Your task to perform on an android device: turn off data saver in the chrome app Image 0: 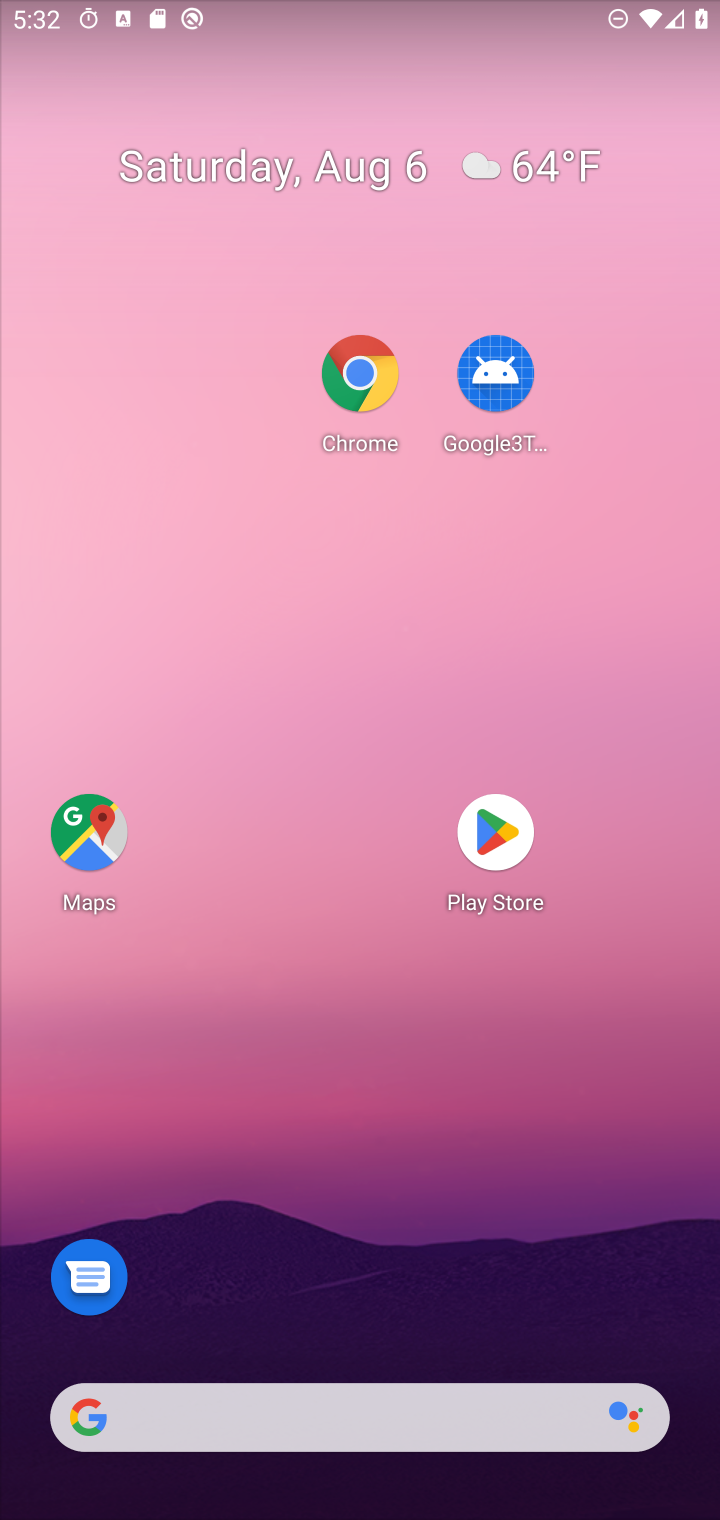
Step 0: drag from (536, 1415) to (538, 132)
Your task to perform on an android device: turn off data saver in the chrome app Image 1: 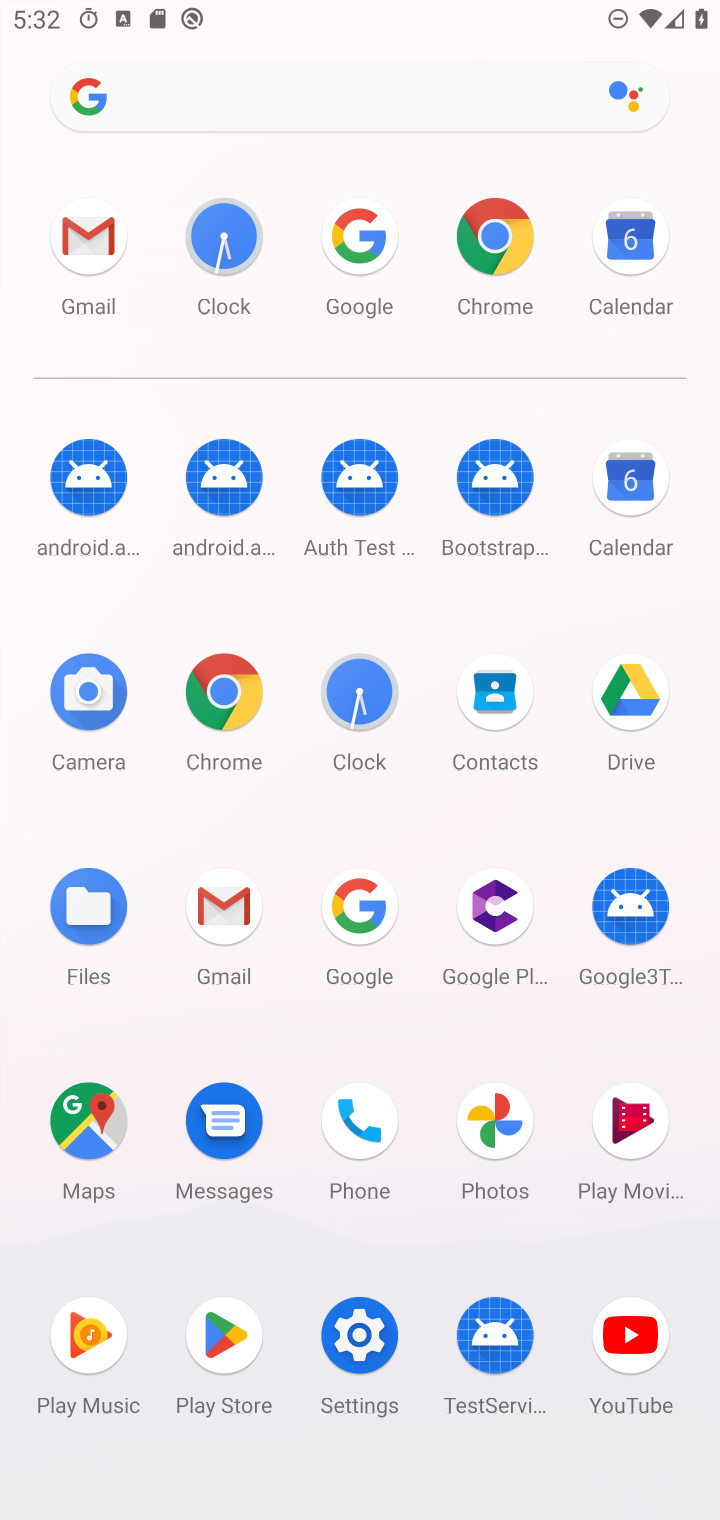
Step 1: click (235, 708)
Your task to perform on an android device: turn off data saver in the chrome app Image 2: 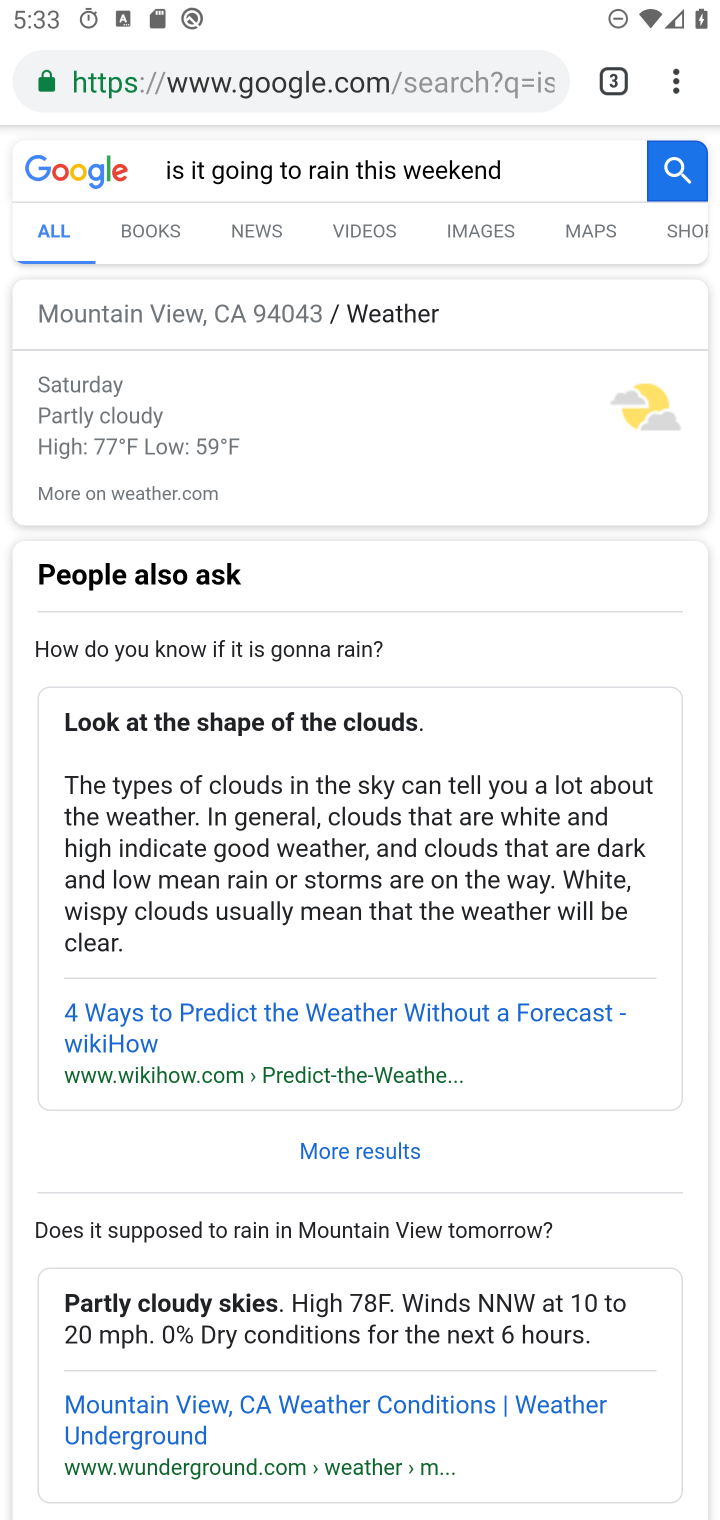
Step 2: drag from (682, 58) to (377, 907)
Your task to perform on an android device: turn off data saver in the chrome app Image 3: 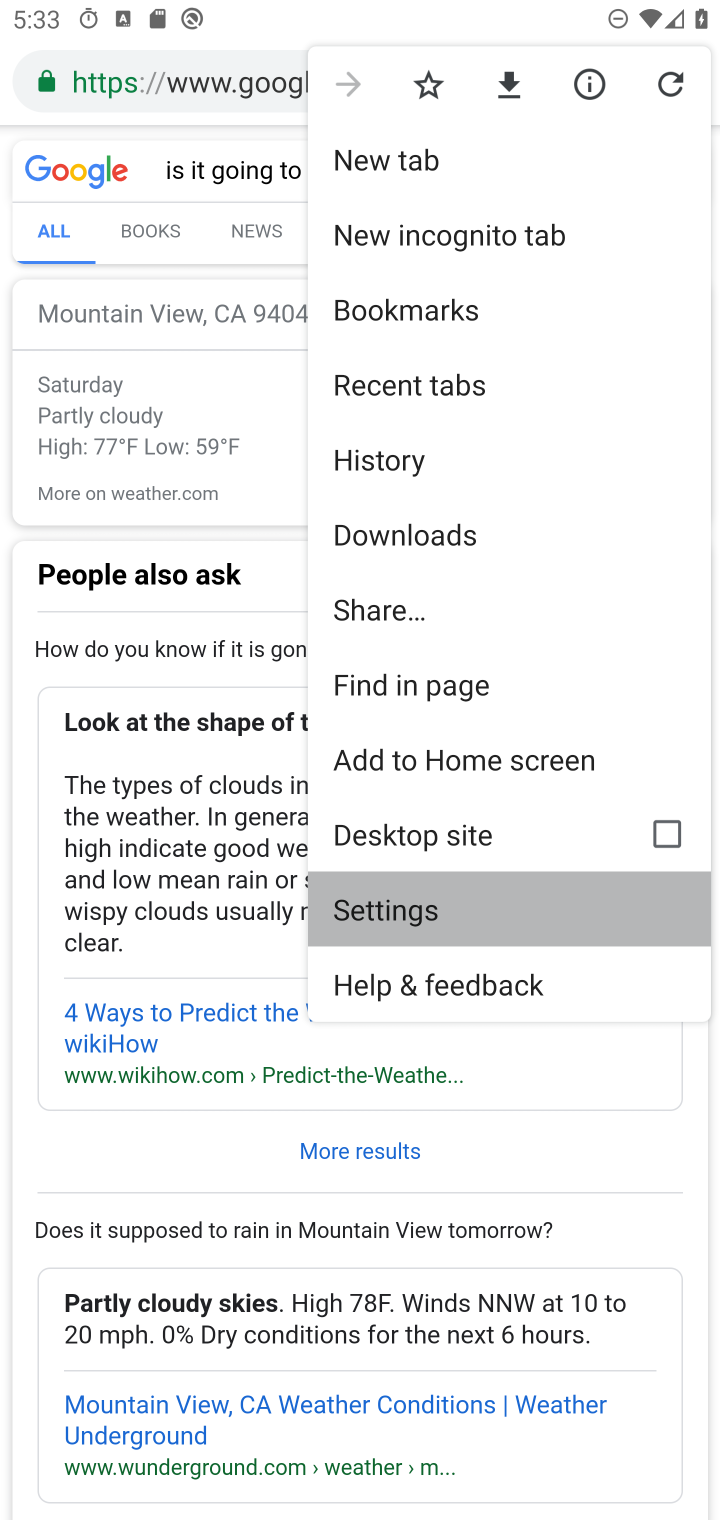
Step 3: click (377, 907)
Your task to perform on an android device: turn off data saver in the chrome app Image 4: 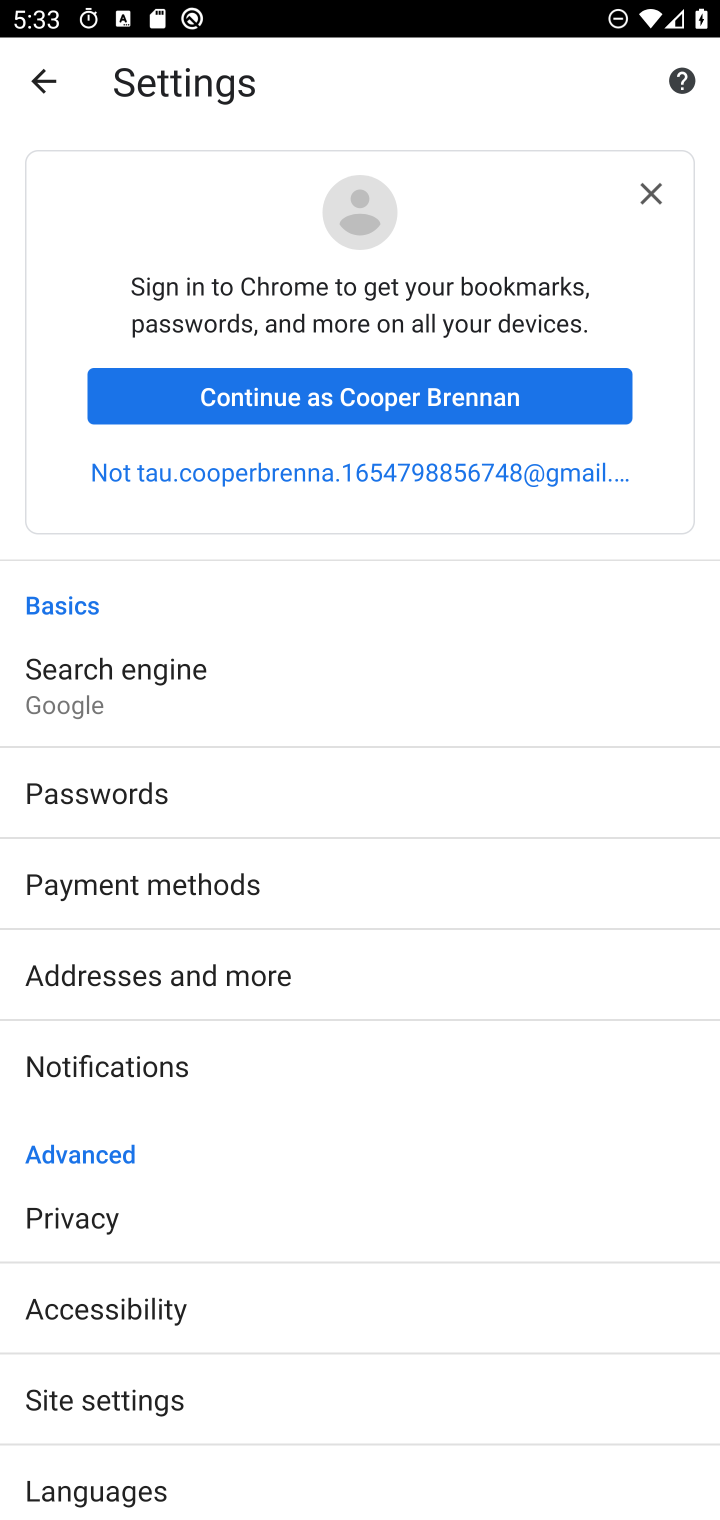
Step 4: drag from (164, 1470) to (235, 1025)
Your task to perform on an android device: turn off data saver in the chrome app Image 5: 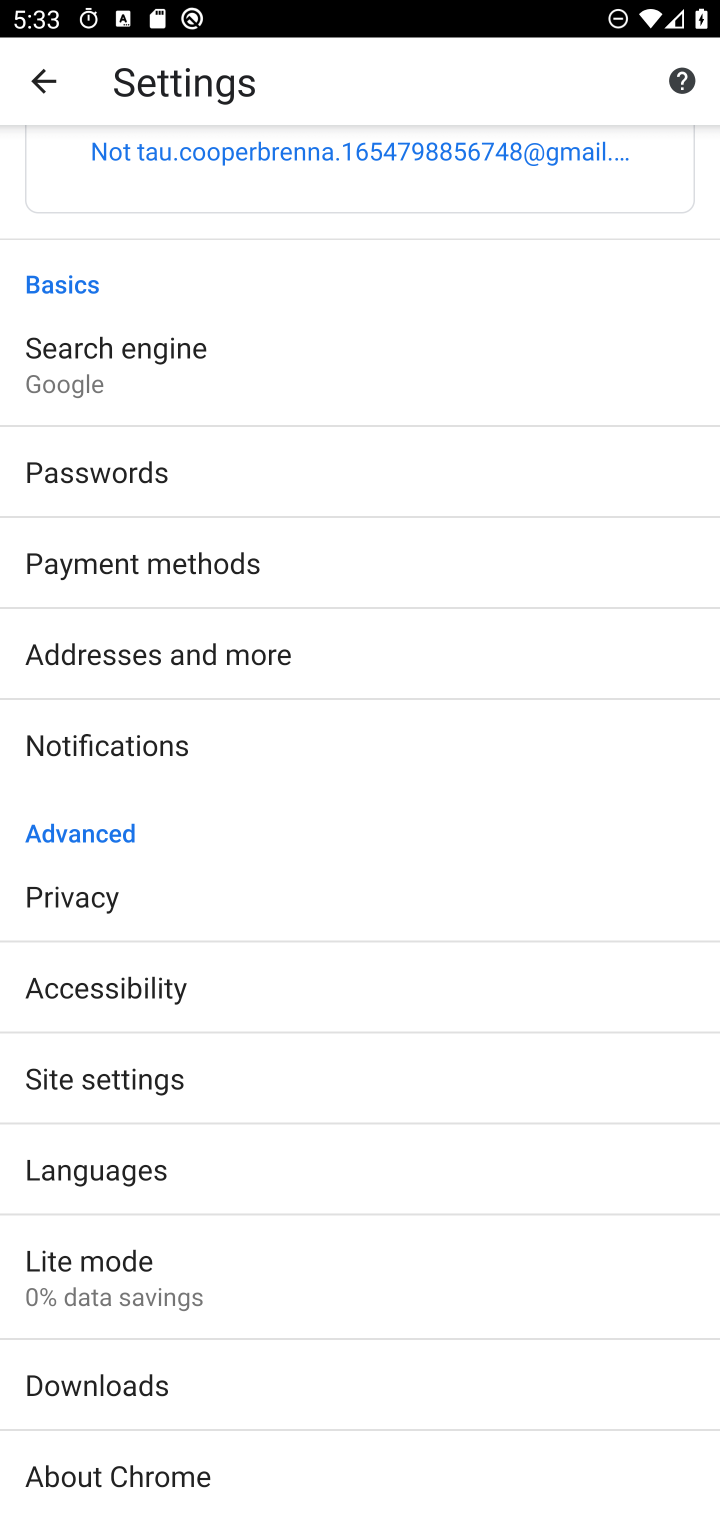
Step 5: click (144, 1274)
Your task to perform on an android device: turn off data saver in the chrome app Image 6: 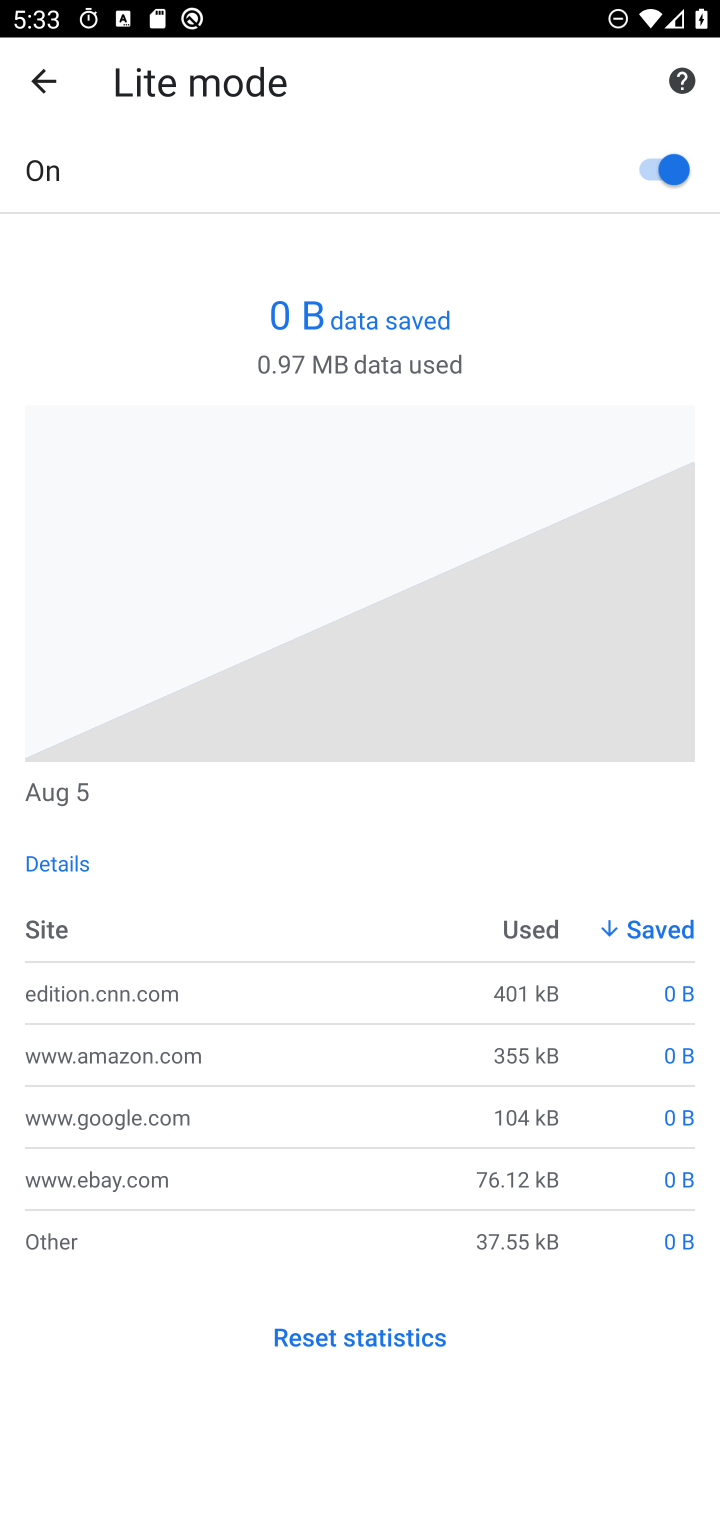
Step 6: click (672, 165)
Your task to perform on an android device: turn off data saver in the chrome app Image 7: 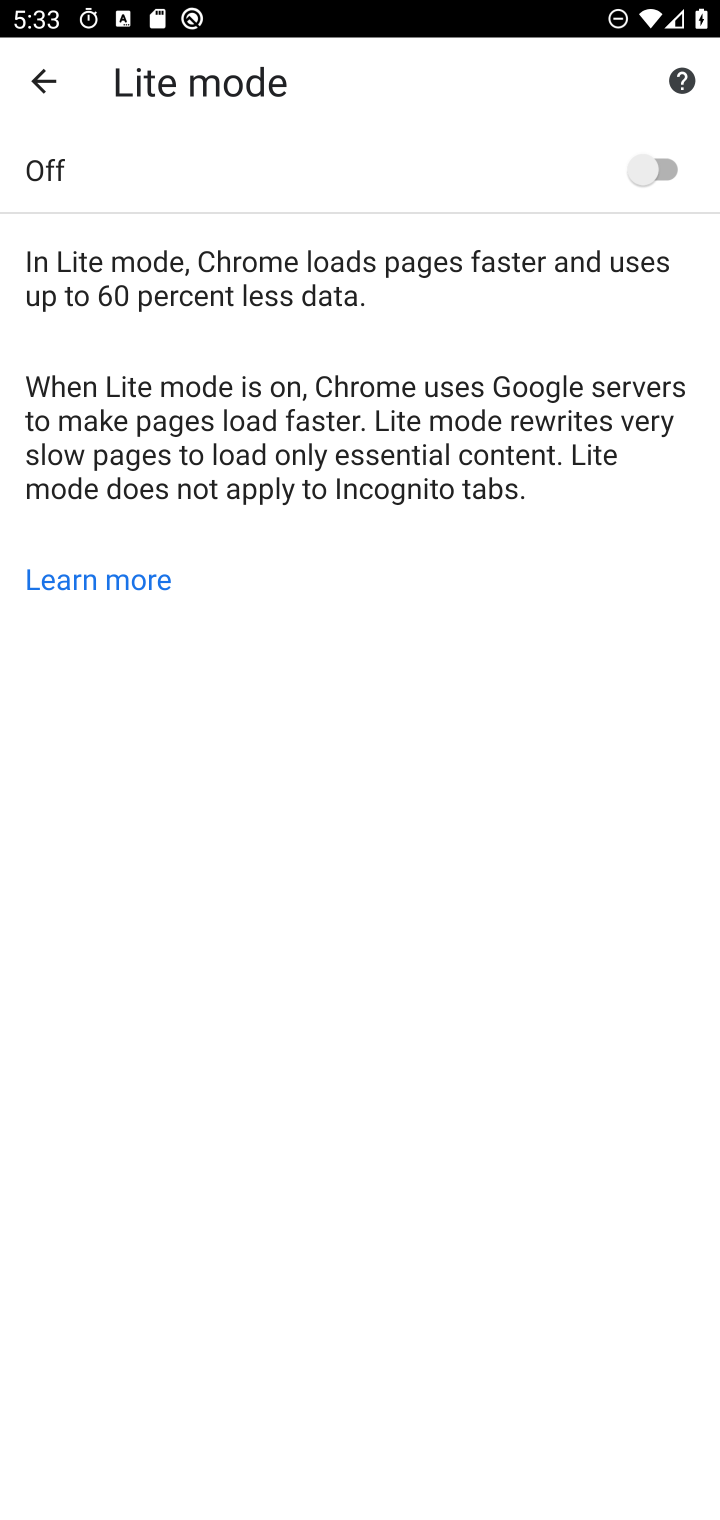
Step 7: task complete